Your task to perform on an android device: What's the weather? Image 0: 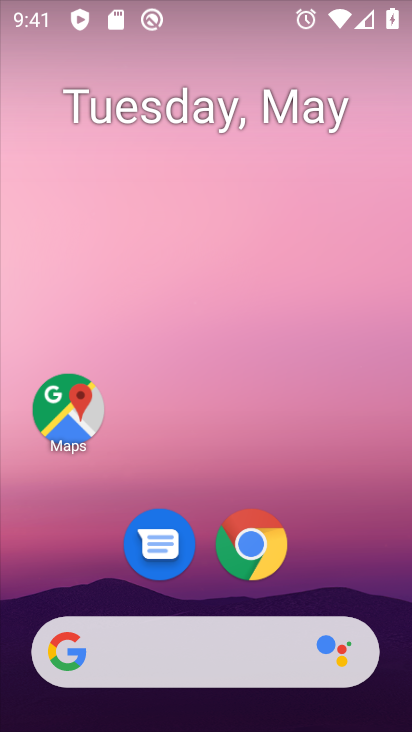
Step 0: drag from (353, 524) to (365, 164)
Your task to perform on an android device: What's the weather? Image 1: 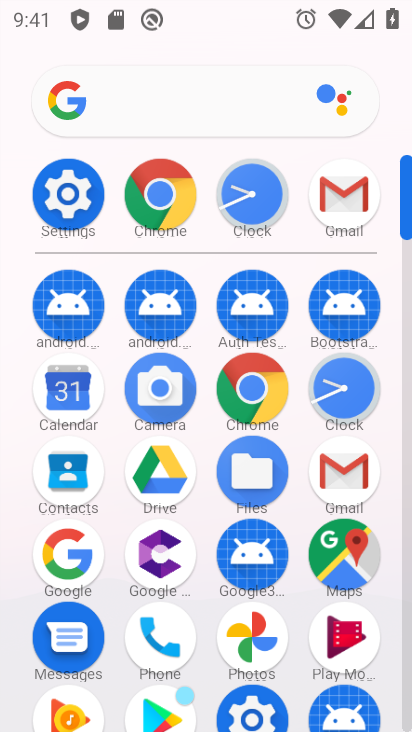
Step 1: click (150, 227)
Your task to perform on an android device: What's the weather? Image 2: 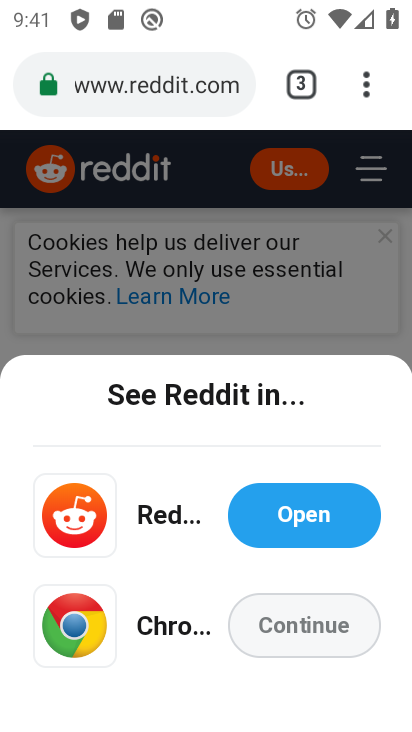
Step 2: click (167, 110)
Your task to perform on an android device: What's the weather? Image 3: 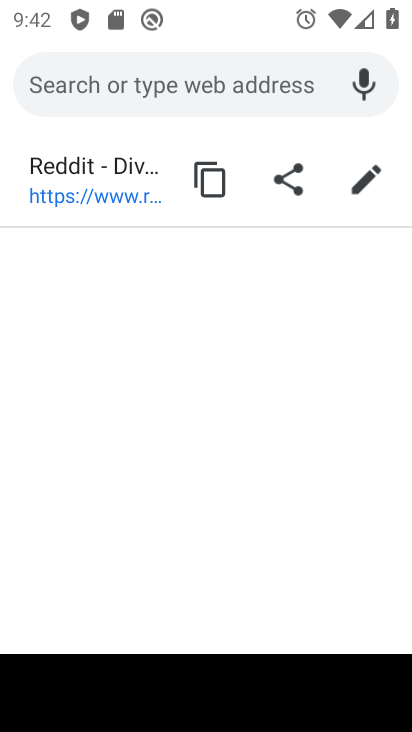
Step 3: type "what's the weather"
Your task to perform on an android device: What's the weather? Image 4: 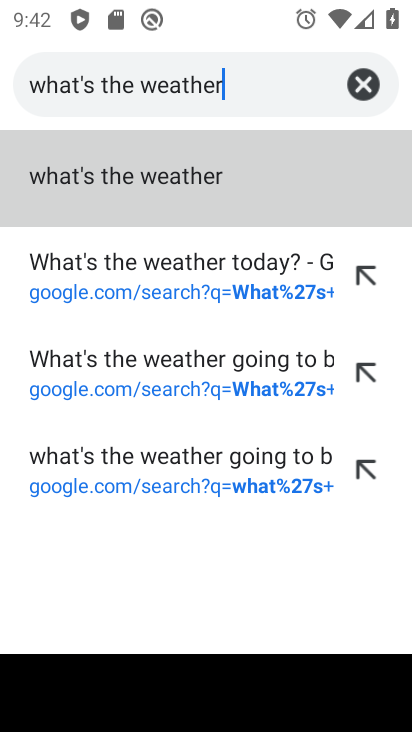
Step 4: click (201, 172)
Your task to perform on an android device: What's the weather? Image 5: 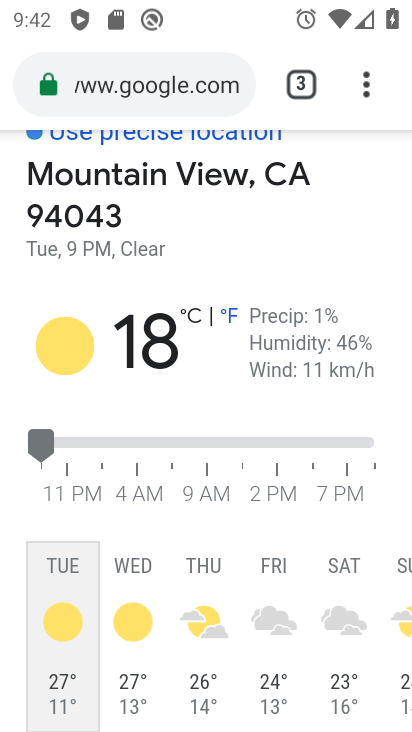
Step 5: task complete